Your task to perform on an android device: check android version Image 0: 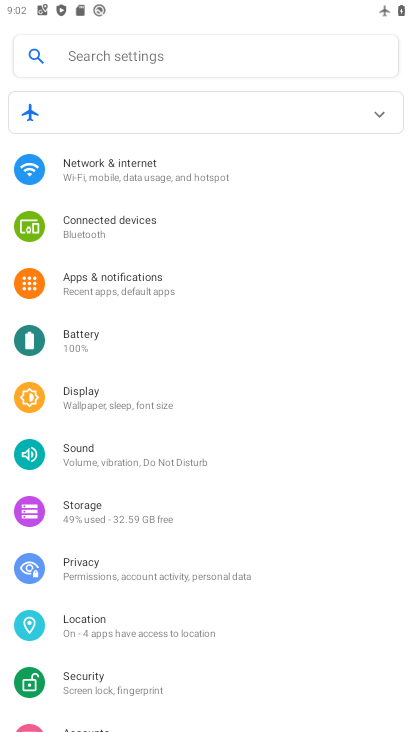
Step 0: press home button
Your task to perform on an android device: check android version Image 1: 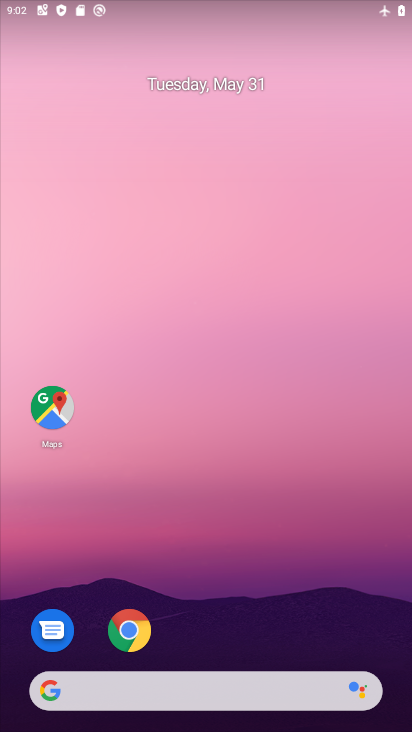
Step 1: drag from (212, 611) to (281, 207)
Your task to perform on an android device: check android version Image 2: 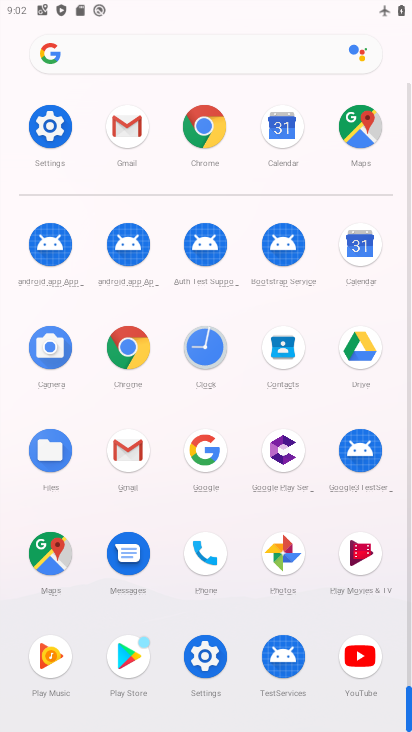
Step 2: click (43, 128)
Your task to perform on an android device: check android version Image 3: 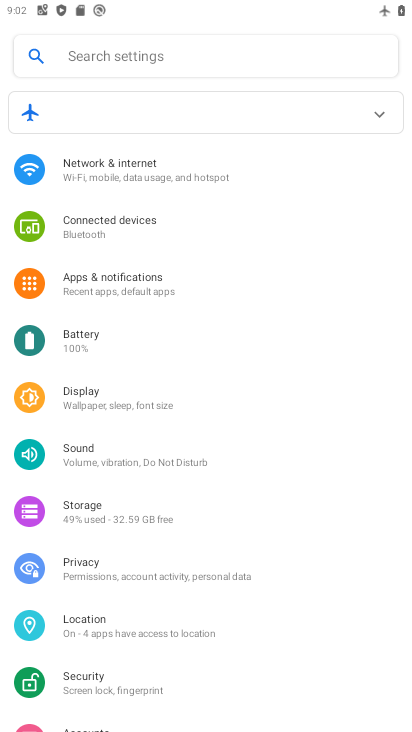
Step 3: drag from (209, 584) to (255, 181)
Your task to perform on an android device: check android version Image 4: 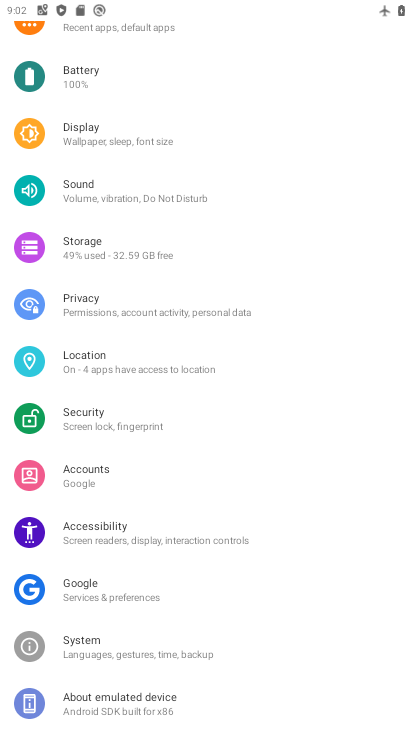
Step 4: drag from (160, 665) to (273, 214)
Your task to perform on an android device: check android version Image 5: 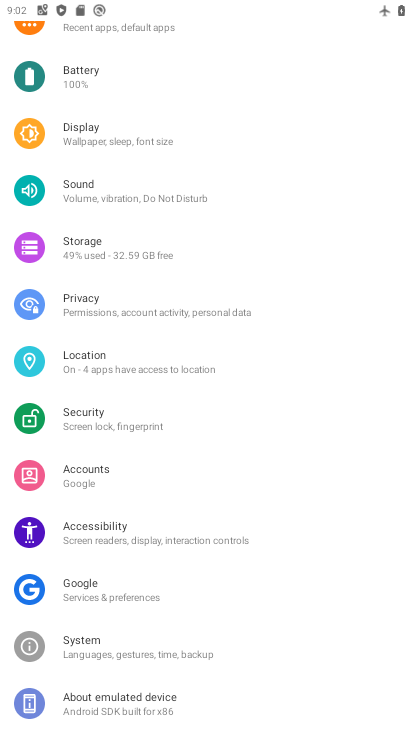
Step 5: click (127, 711)
Your task to perform on an android device: check android version Image 6: 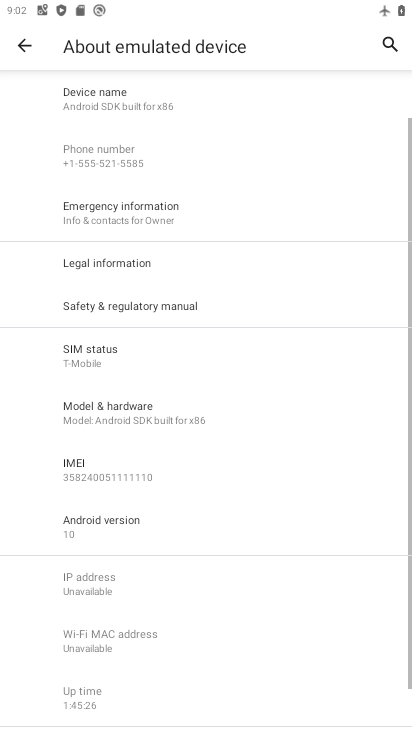
Step 6: drag from (193, 645) to (291, 177)
Your task to perform on an android device: check android version Image 7: 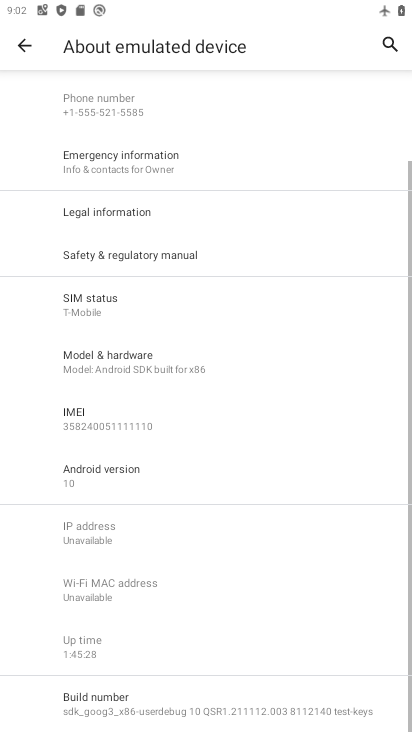
Step 7: click (154, 708)
Your task to perform on an android device: check android version Image 8: 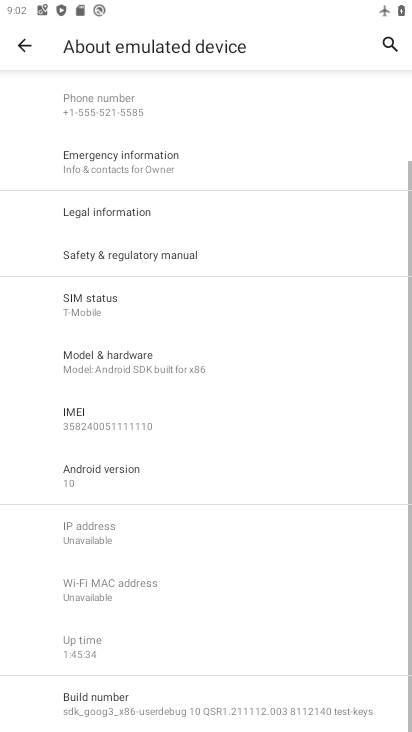
Step 8: click (207, 475)
Your task to perform on an android device: check android version Image 9: 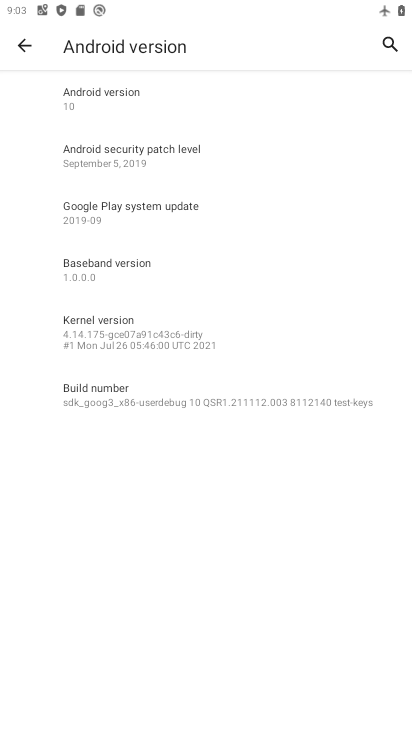
Step 9: task complete